Your task to perform on an android device: set an alarm Image 0: 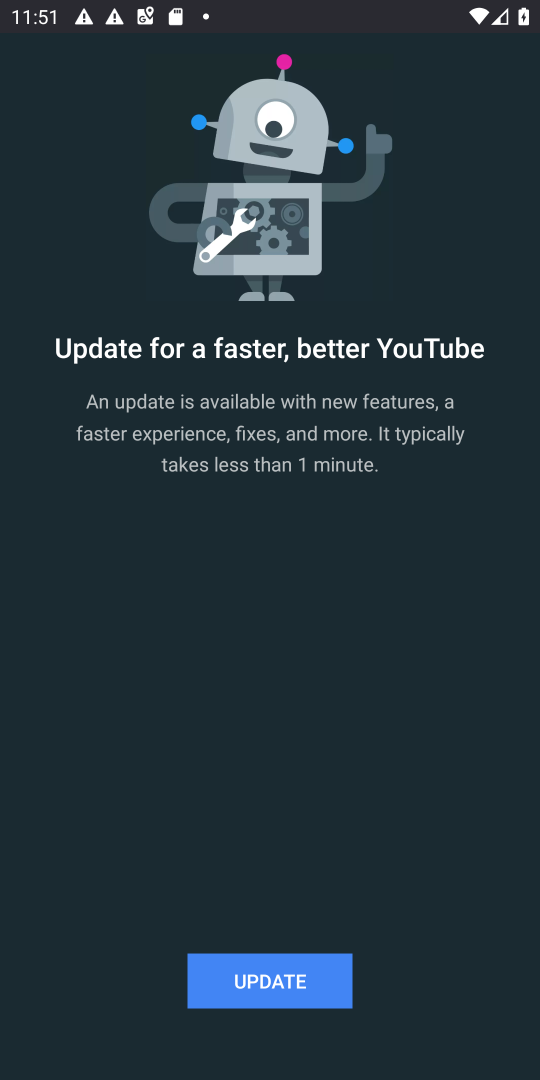
Step 0: press home button
Your task to perform on an android device: set an alarm Image 1: 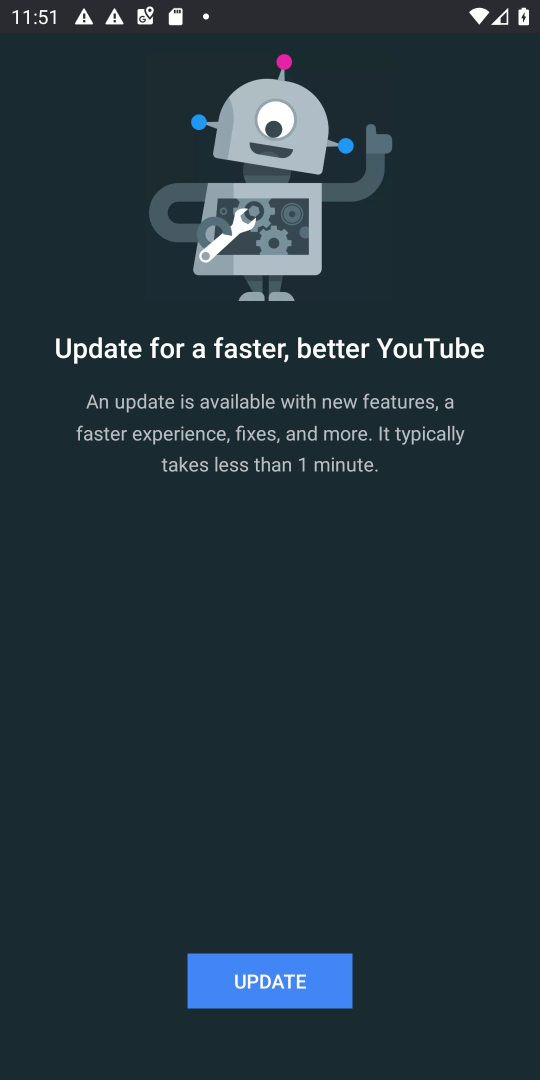
Step 1: press home button
Your task to perform on an android device: set an alarm Image 2: 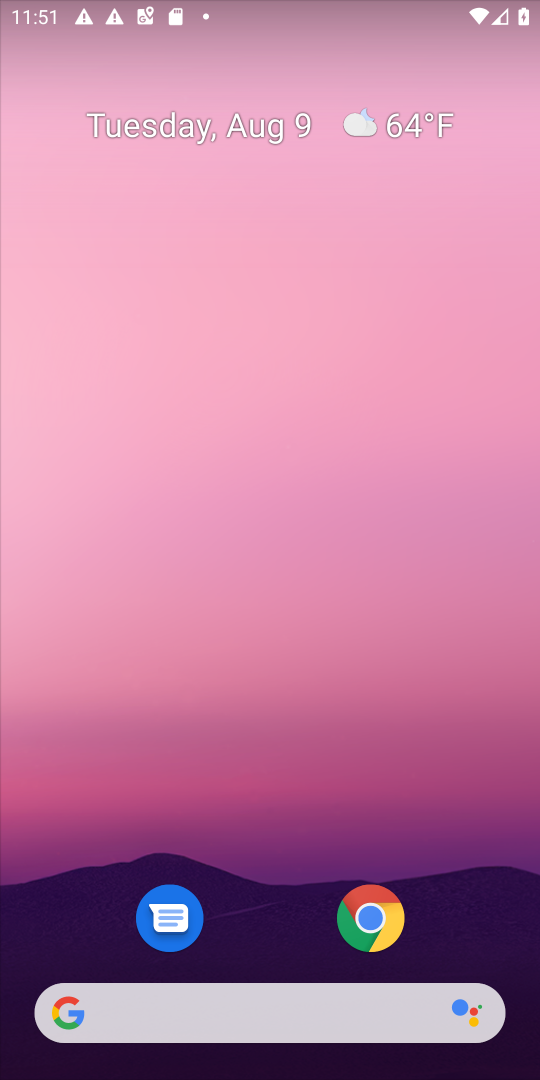
Step 2: drag from (279, 731) to (273, 76)
Your task to perform on an android device: set an alarm Image 3: 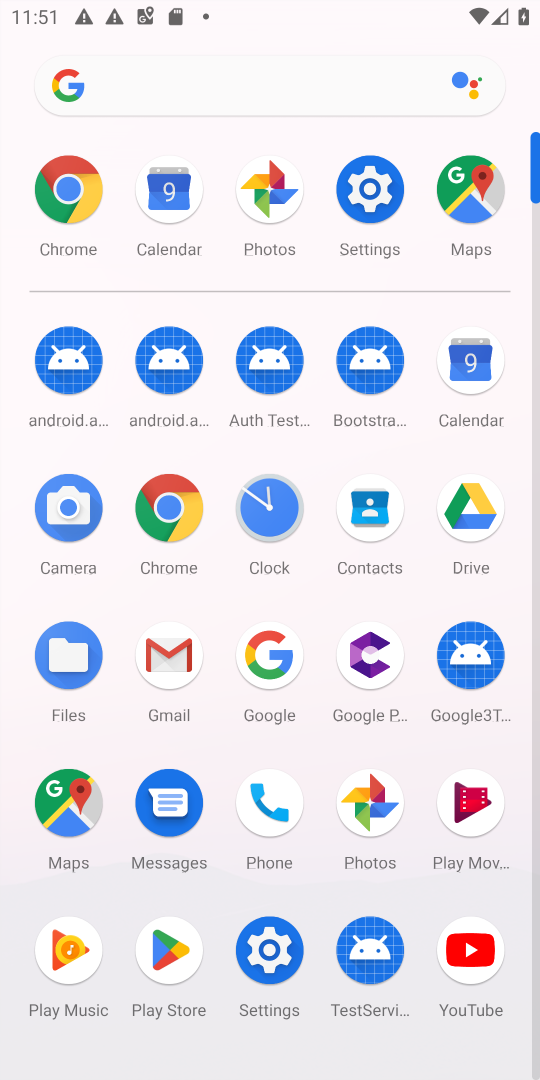
Step 3: click (274, 498)
Your task to perform on an android device: set an alarm Image 4: 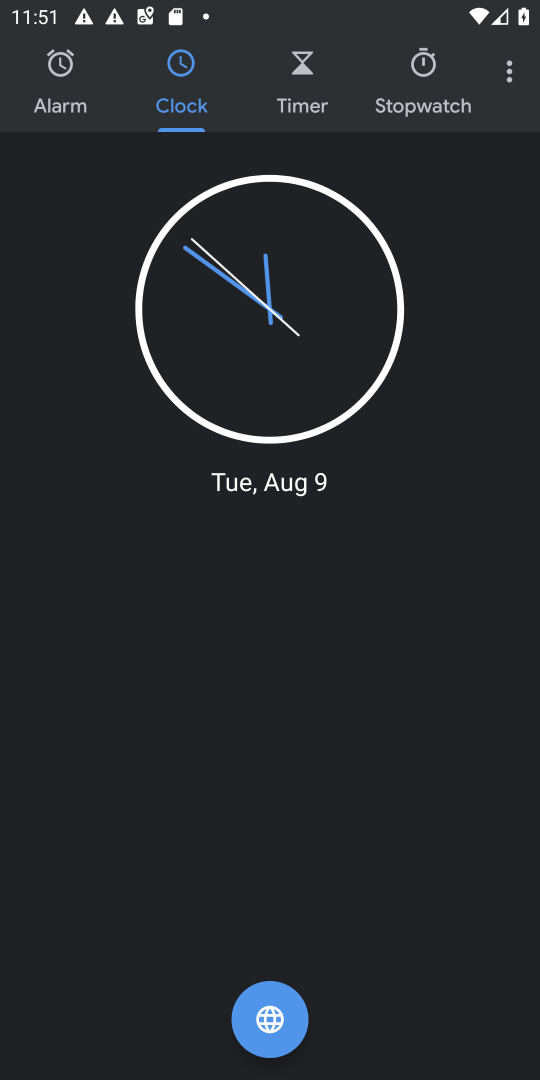
Step 4: click (89, 93)
Your task to perform on an android device: set an alarm Image 5: 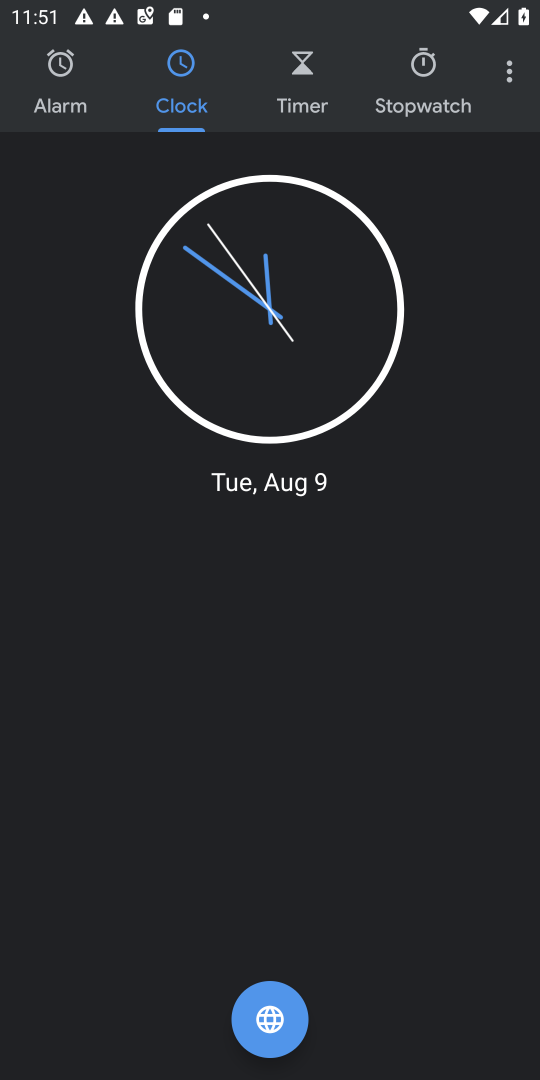
Step 5: click (66, 73)
Your task to perform on an android device: set an alarm Image 6: 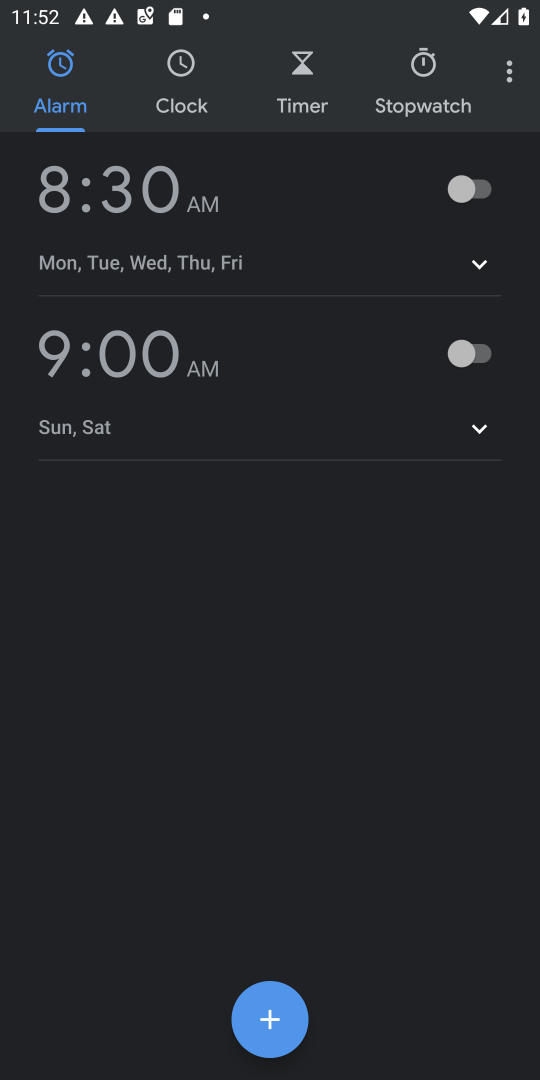
Step 6: click (294, 1022)
Your task to perform on an android device: set an alarm Image 7: 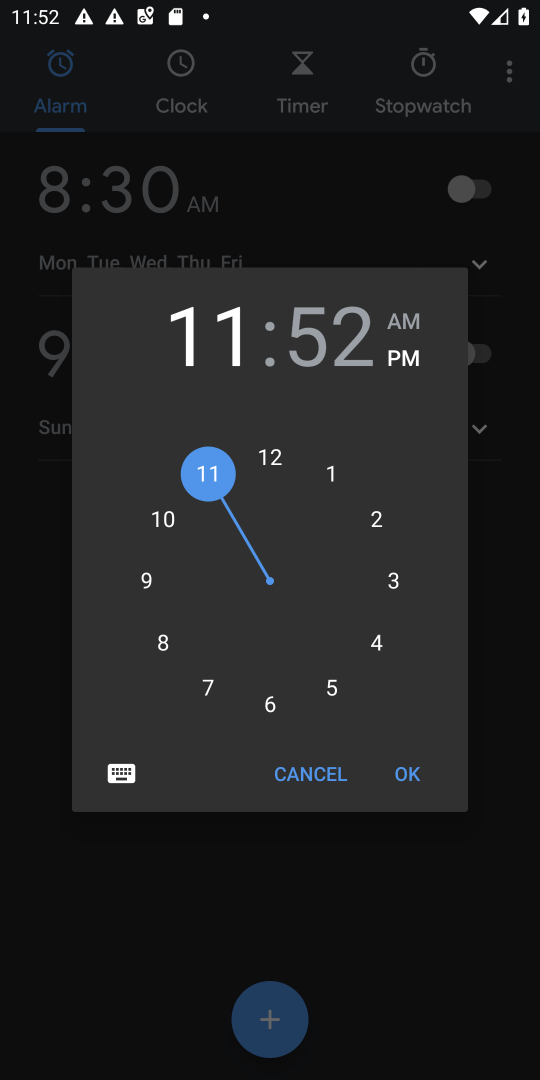
Step 7: click (415, 775)
Your task to perform on an android device: set an alarm Image 8: 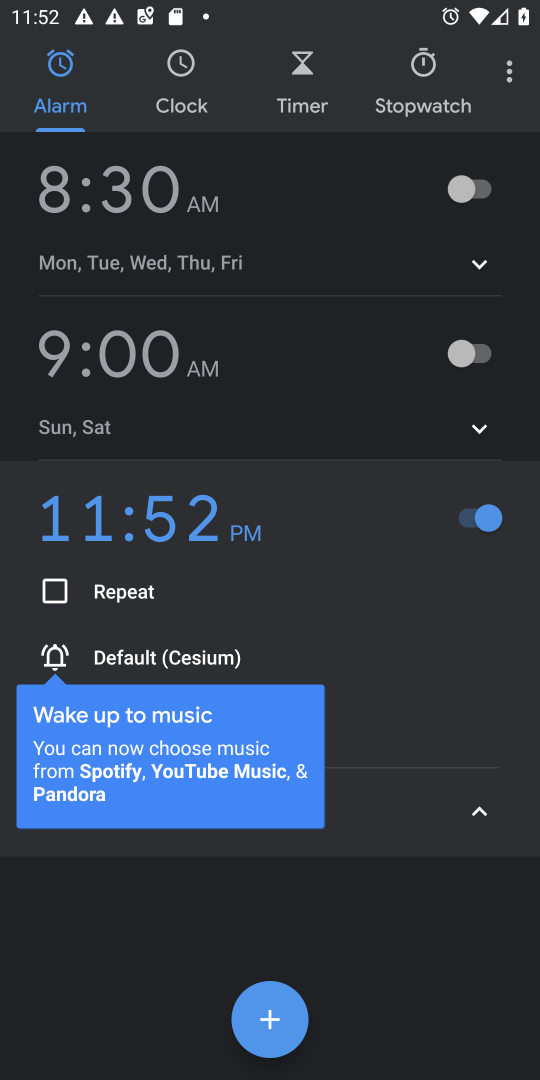
Step 8: task complete